Your task to perform on an android device: Open privacy settings Image 0: 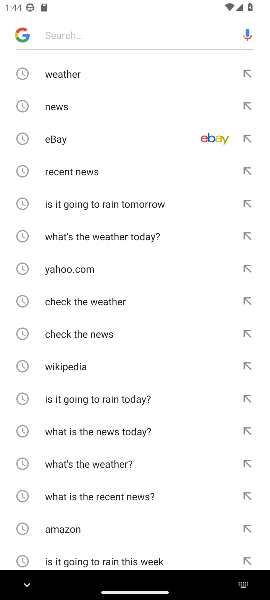
Step 0: press home button
Your task to perform on an android device: Open privacy settings Image 1: 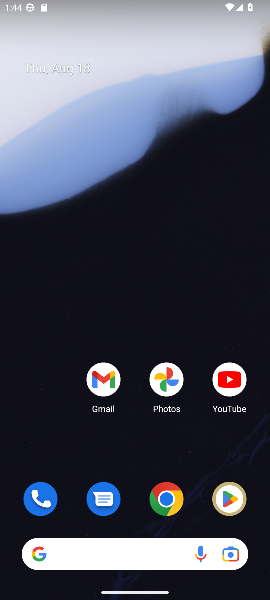
Step 1: drag from (133, 518) to (107, 139)
Your task to perform on an android device: Open privacy settings Image 2: 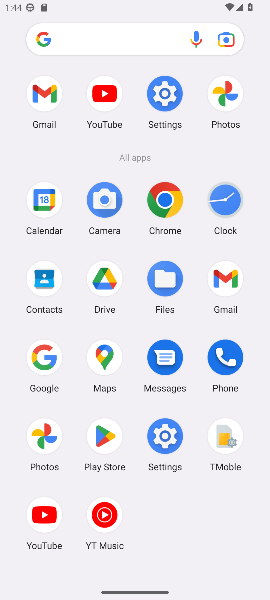
Step 2: click (163, 93)
Your task to perform on an android device: Open privacy settings Image 3: 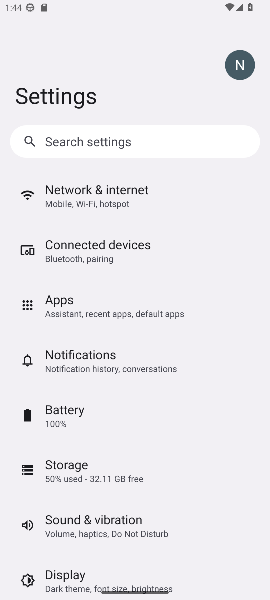
Step 3: drag from (167, 488) to (145, 275)
Your task to perform on an android device: Open privacy settings Image 4: 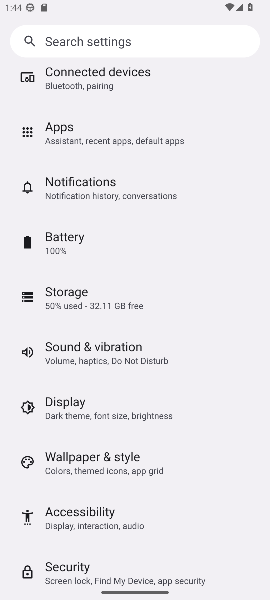
Step 4: drag from (153, 521) to (153, 237)
Your task to perform on an android device: Open privacy settings Image 5: 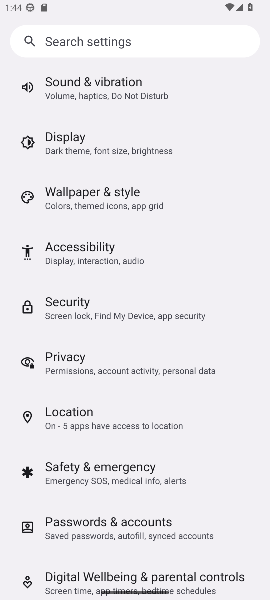
Step 5: click (61, 354)
Your task to perform on an android device: Open privacy settings Image 6: 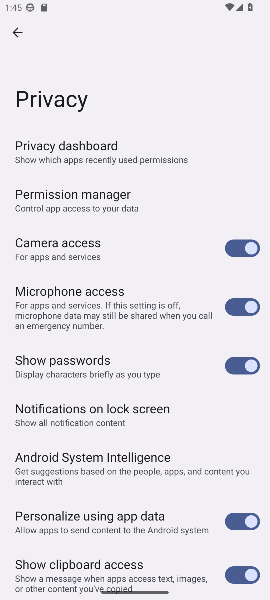
Step 6: task complete